Your task to perform on an android device: turn pop-ups on in chrome Image 0: 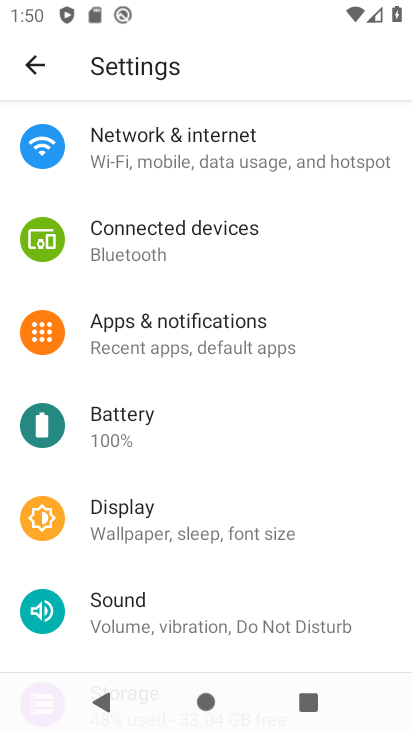
Step 0: press home button
Your task to perform on an android device: turn pop-ups on in chrome Image 1: 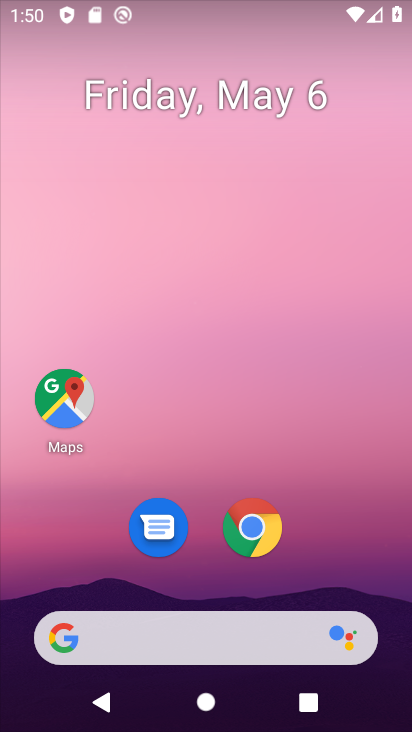
Step 1: drag from (308, 592) to (356, 145)
Your task to perform on an android device: turn pop-ups on in chrome Image 2: 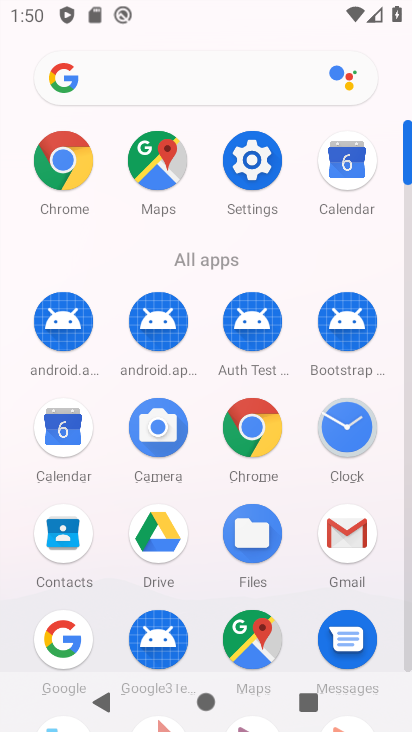
Step 2: click (76, 149)
Your task to perform on an android device: turn pop-ups on in chrome Image 3: 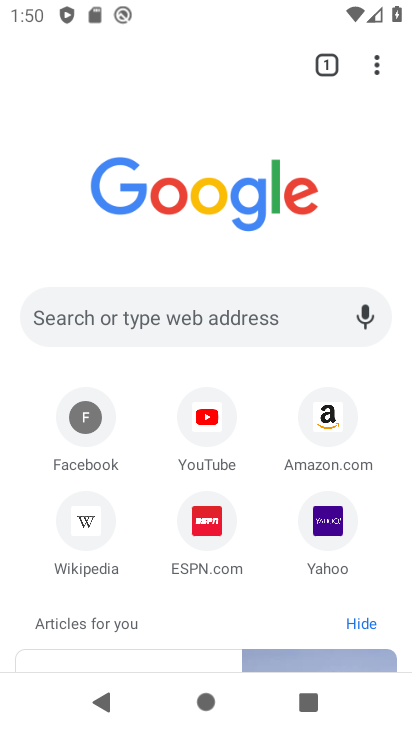
Step 3: drag from (378, 57) to (205, 532)
Your task to perform on an android device: turn pop-ups on in chrome Image 4: 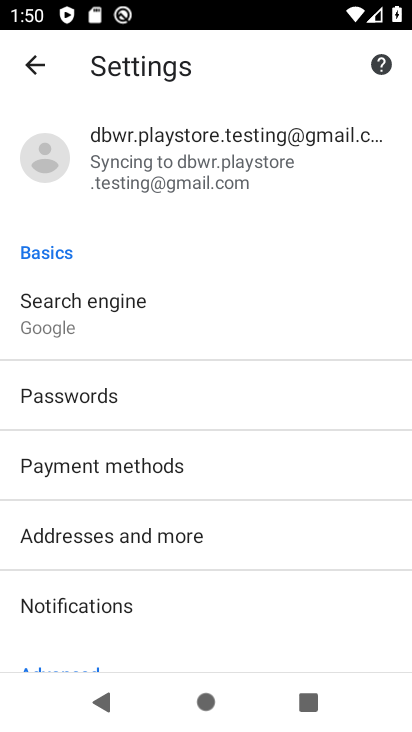
Step 4: drag from (305, 629) to (318, 287)
Your task to perform on an android device: turn pop-ups on in chrome Image 5: 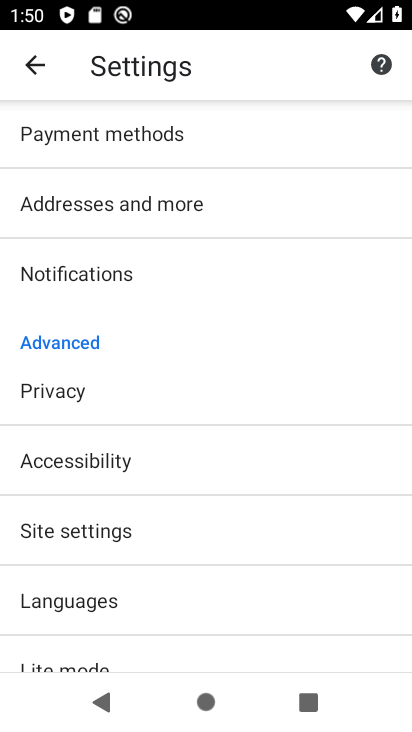
Step 5: click (79, 533)
Your task to perform on an android device: turn pop-ups on in chrome Image 6: 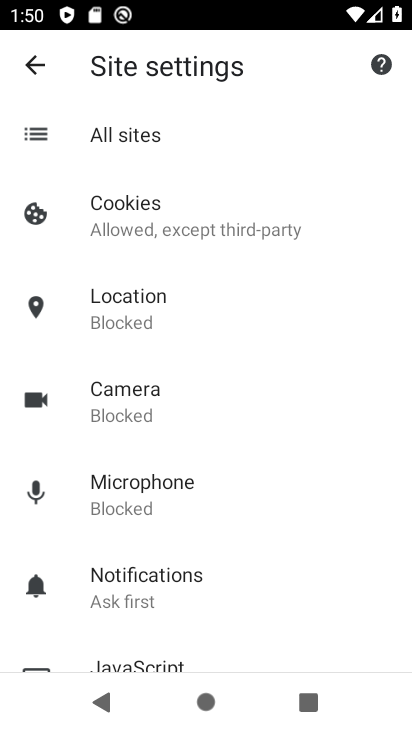
Step 6: drag from (241, 603) to (304, 184)
Your task to perform on an android device: turn pop-ups on in chrome Image 7: 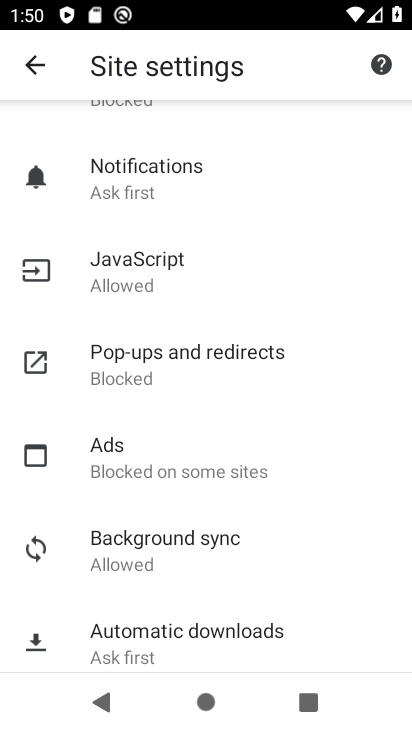
Step 7: click (248, 347)
Your task to perform on an android device: turn pop-ups on in chrome Image 8: 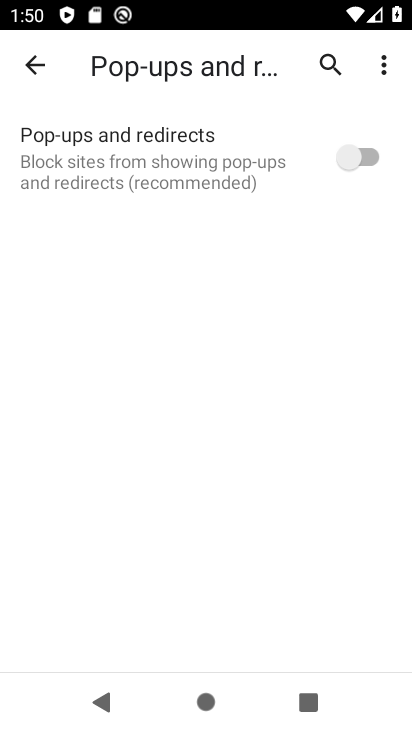
Step 8: click (361, 161)
Your task to perform on an android device: turn pop-ups on in chrome Image 9: 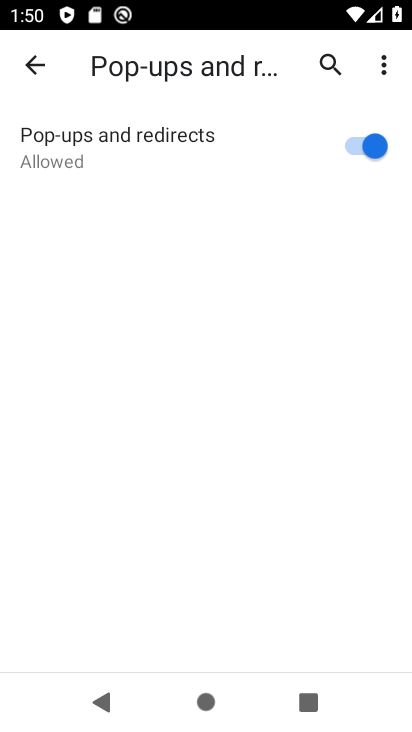
Step 9: task complete